Your task to perform on an android device: Add acer nitro to the cart on target Image 0: 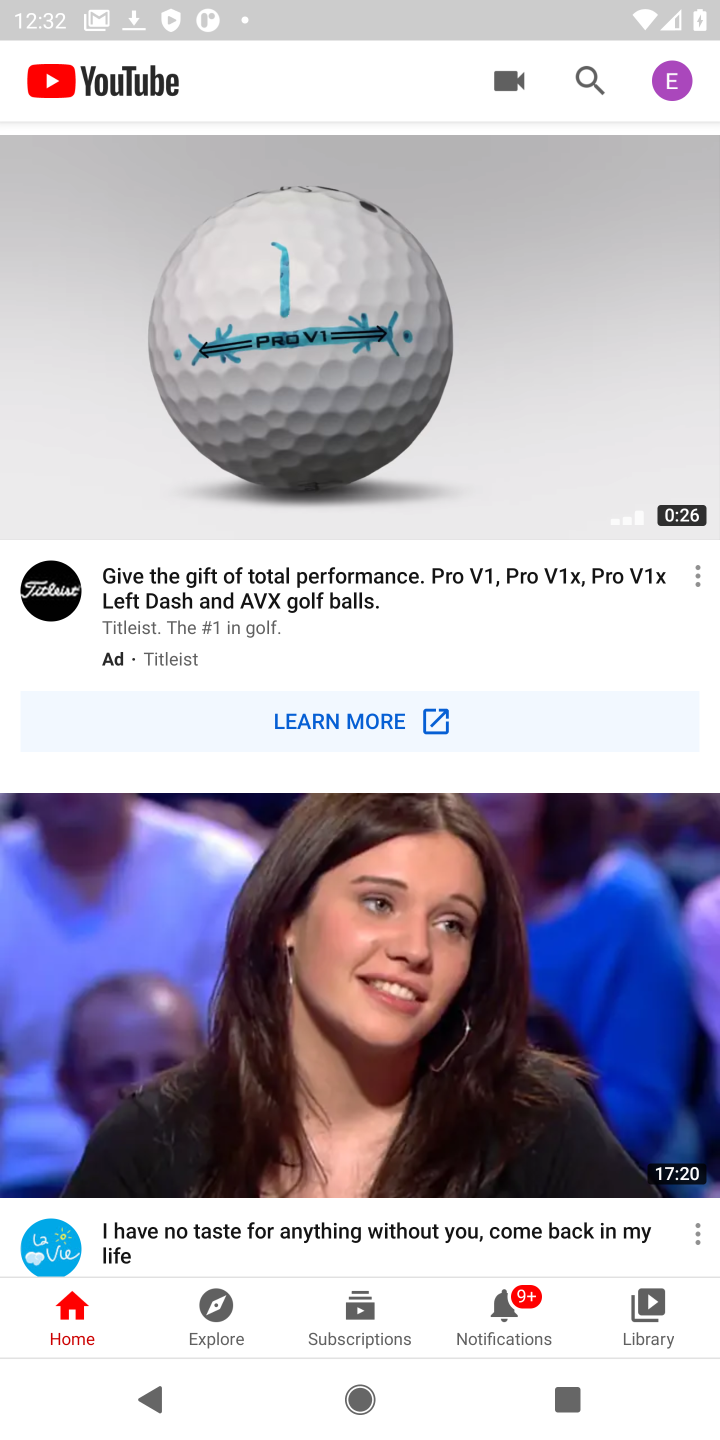
Step 0: press home button
Your task to perform on an android device: Add acer nitro to the cart on target Image 1: 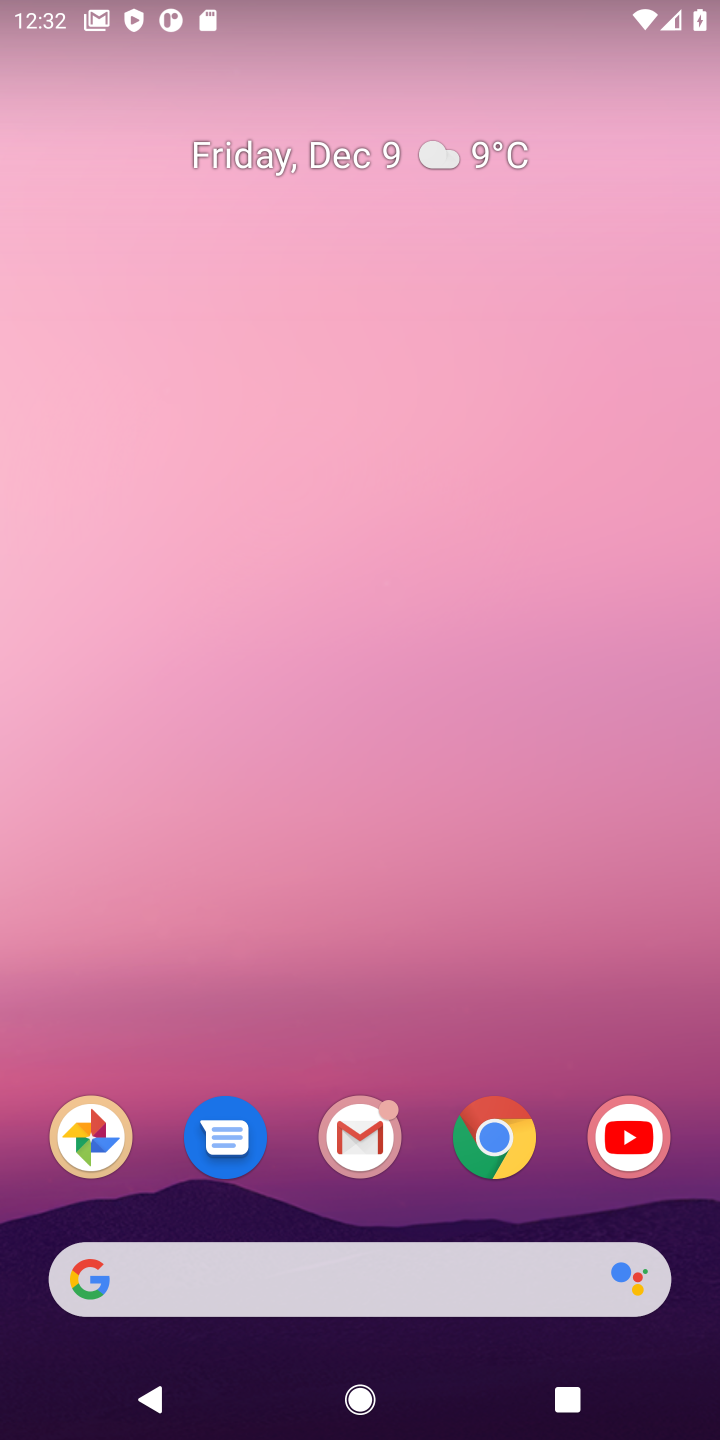
Step 1: click (306, 1271)
Your task to perform on an android device: Add acer nitro to the cart on target Image 2: 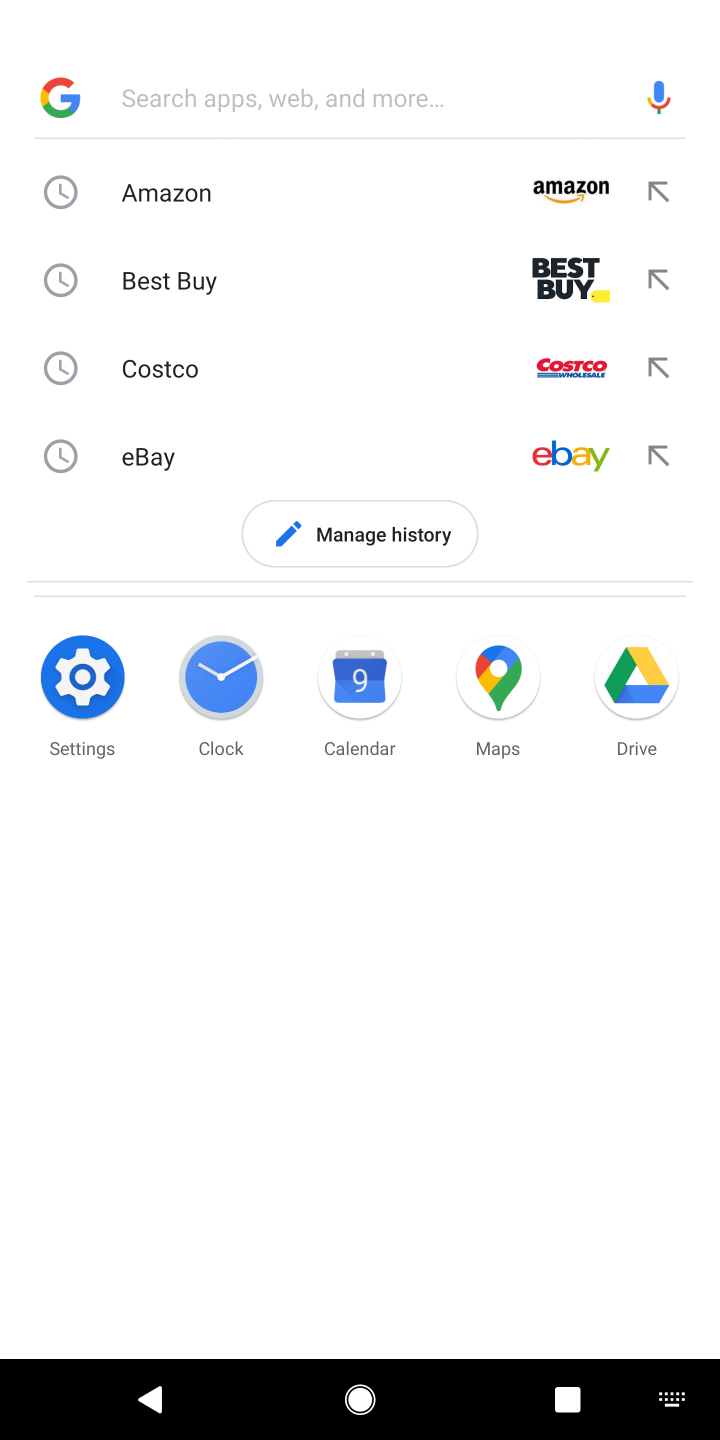
Step 2: type "target"
Your task to perform on an android device: Add acer nitro to the cart on target Image 3: 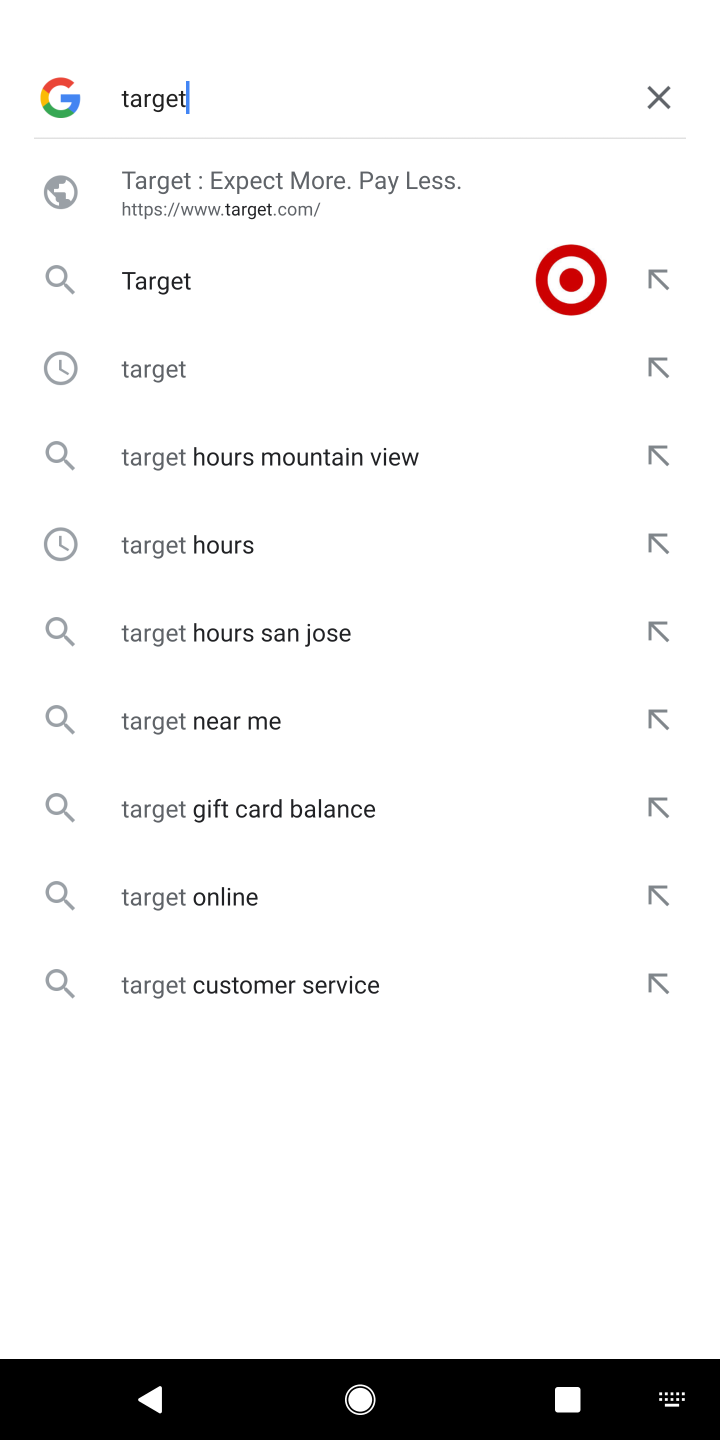
Step 3: click (179, 172)
Your task to perform on an android device: Add acer nitro to the cart on target Image 4: 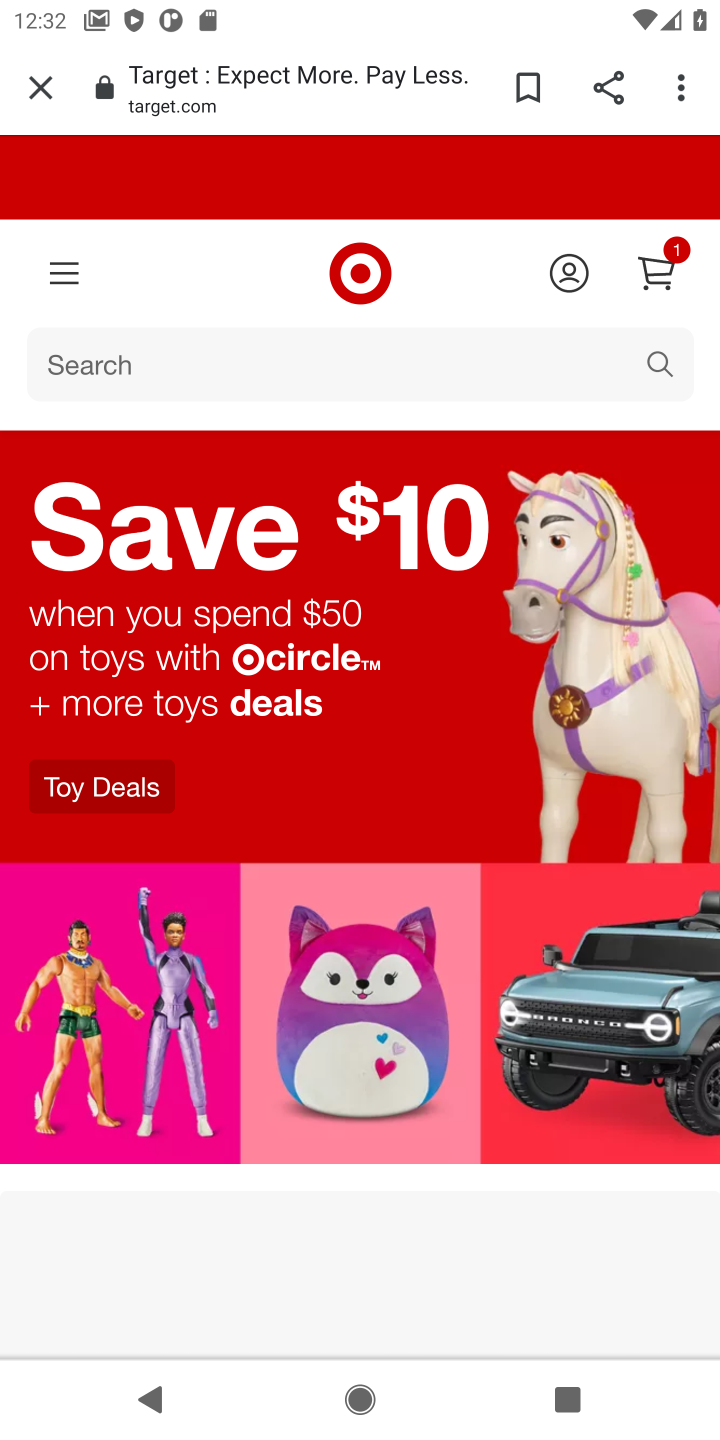
Step 4: click (150, 359)
Your task to perform on an android device: Add acer nitro to the cart on target Image 5: 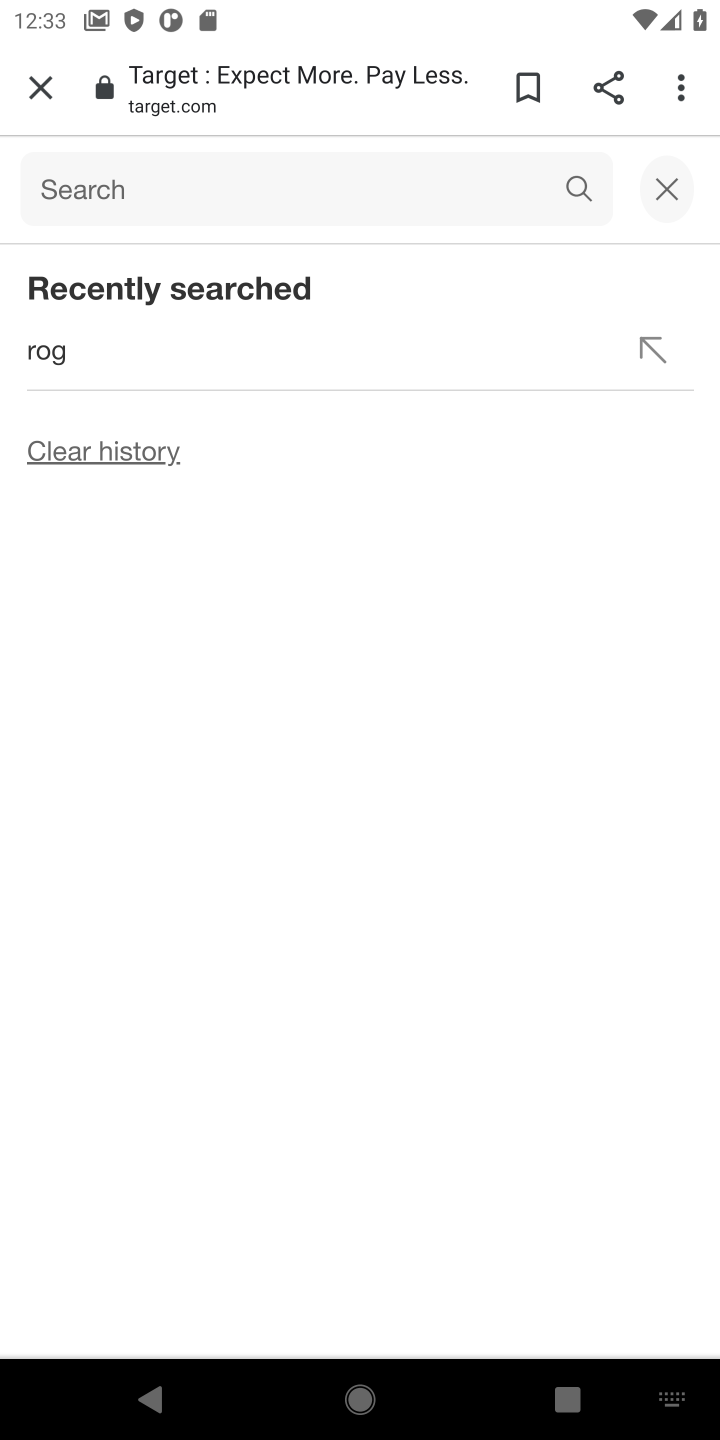
Step 5: type "acer nitro "
Your task to perform on an android device: Add acer nitro to the cart on target Image 6: 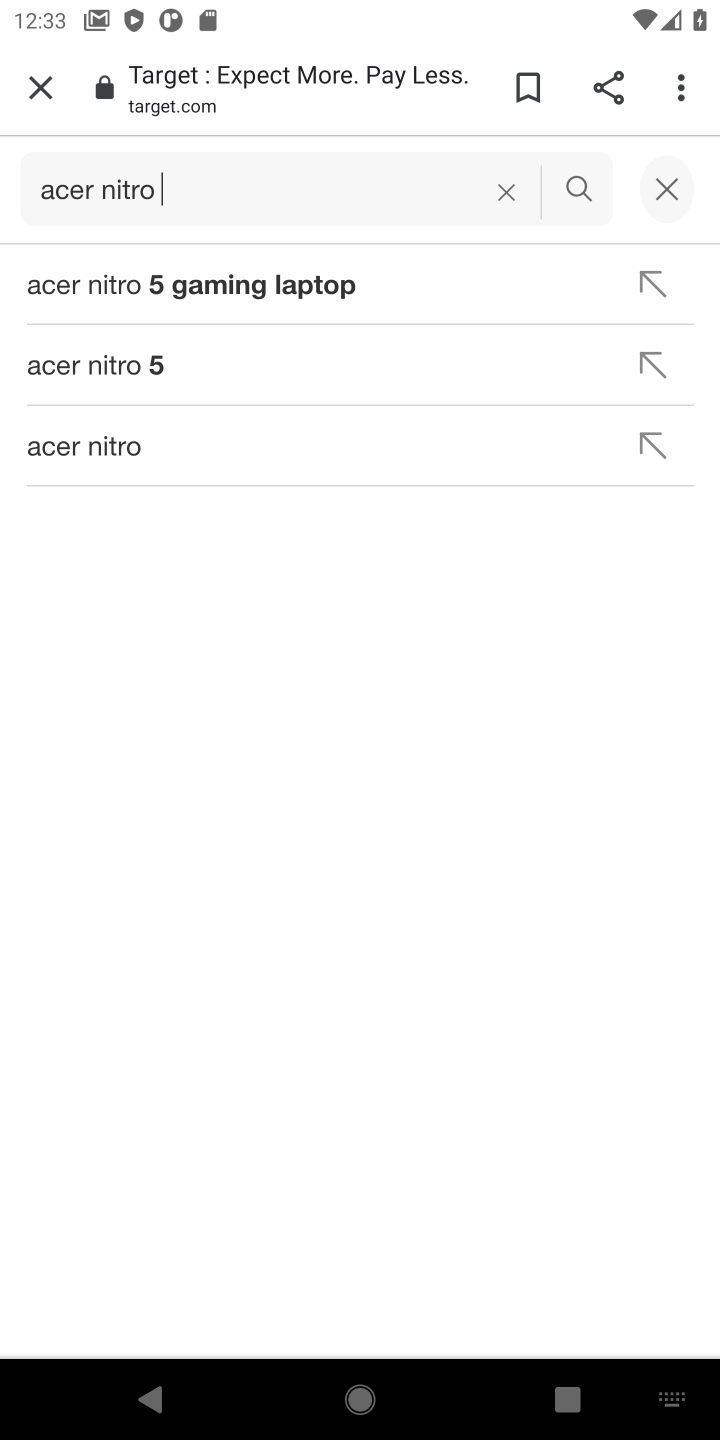
Step 6: click (149, 432)
Your task to perform on an android device: Add acer nitro to the cart on target Image 7: 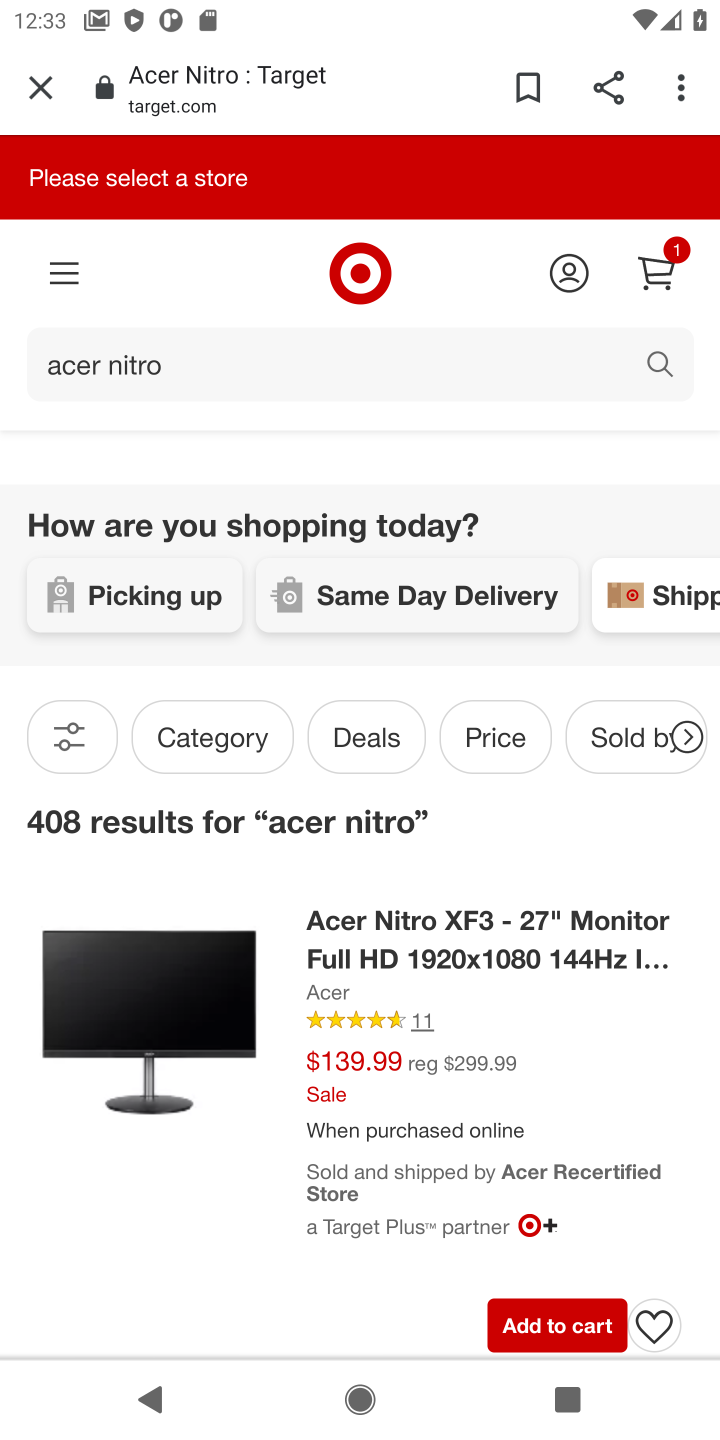
Step 7: click (586, 1344)
Your task to perform on an android device: Add acer nitro to the cart on target Image 8: 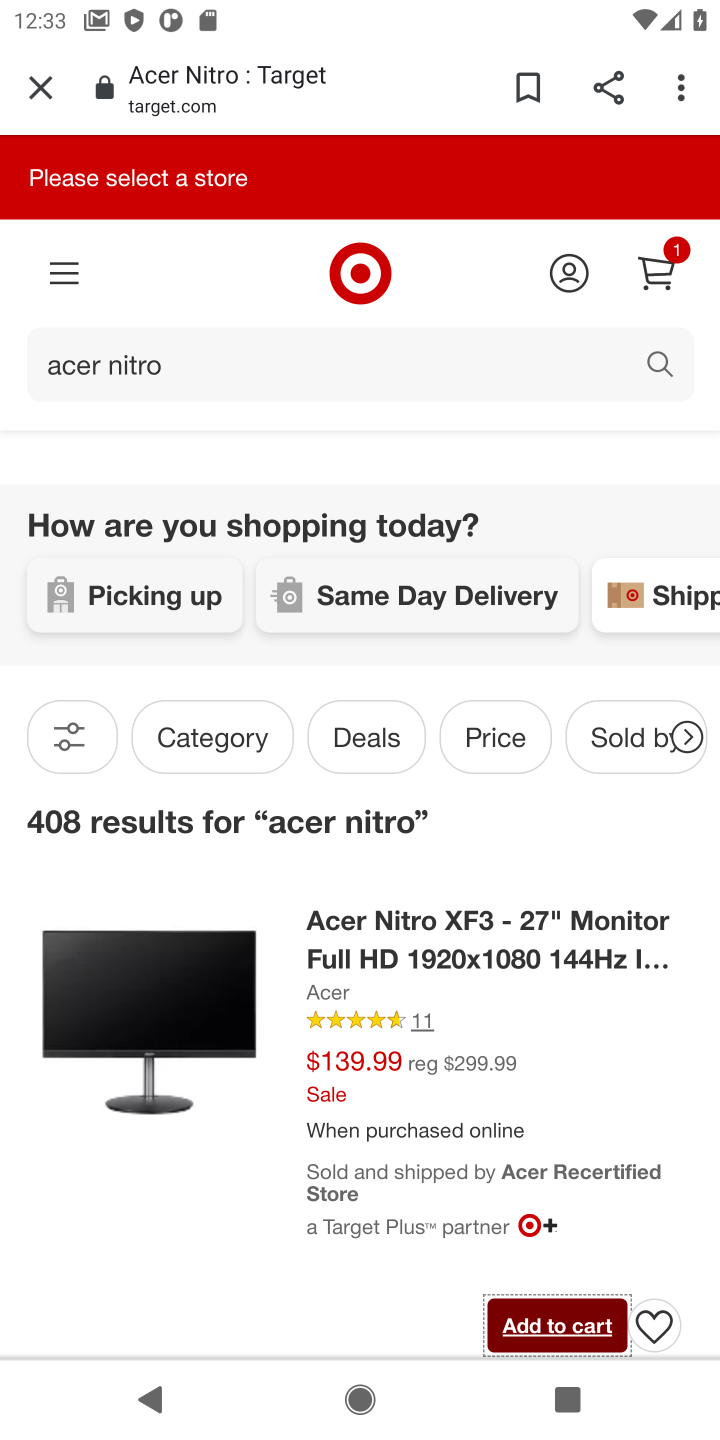
Step 8: task complete